Your task to perform on an android device: Do I have any events today? Image 0: 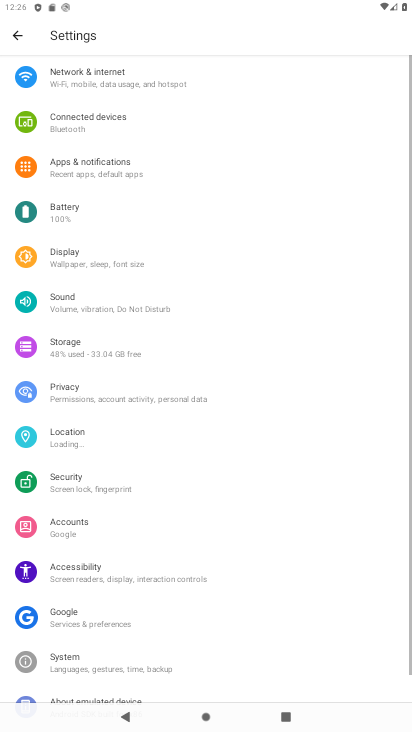
Step 0: press home button
Your task to perform on an android device: Do I have any events today? Image 1: 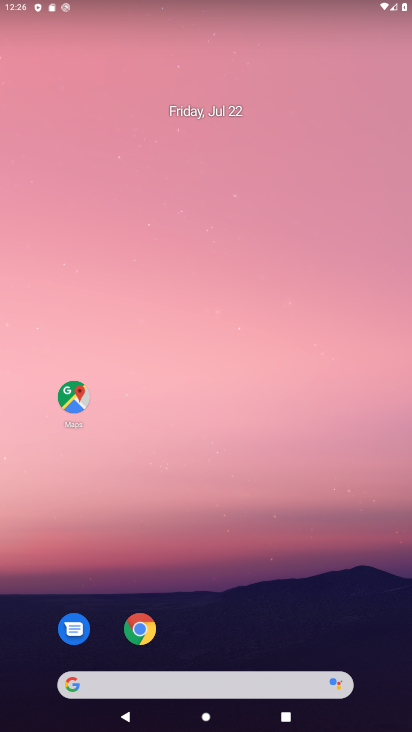
Step 1: drag from (223, 604) to (208, 142)
Your task to perform on an android device: Do I have any events today? Image 2: 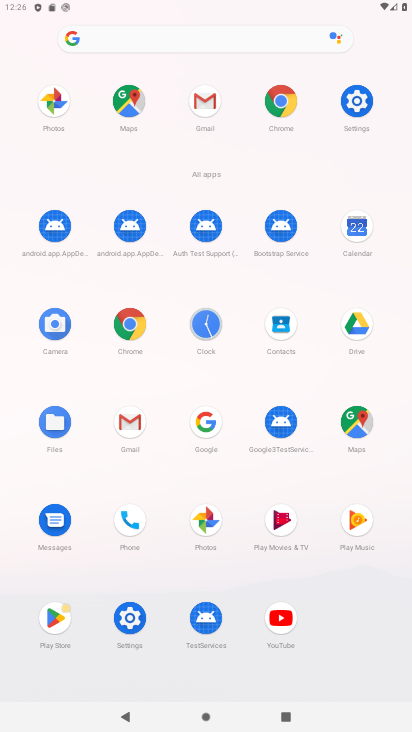
Step 2: click (354, 229)
Your task to perform on an android device: Do I have any events today? Image 3: 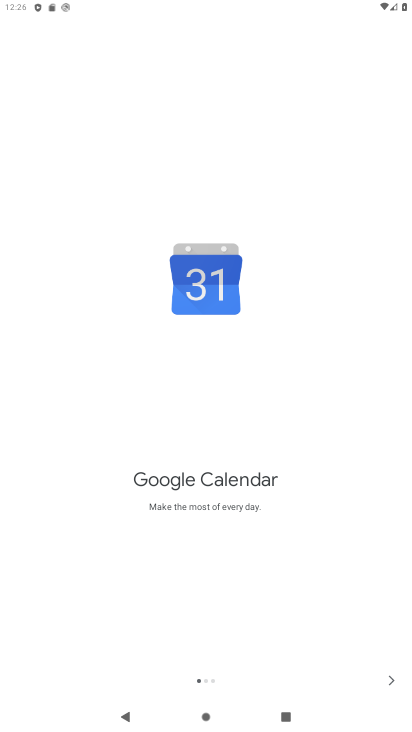
Step 3: click (389, 681)
Your task to perform on an android device: Do I have any events today? Image 4: 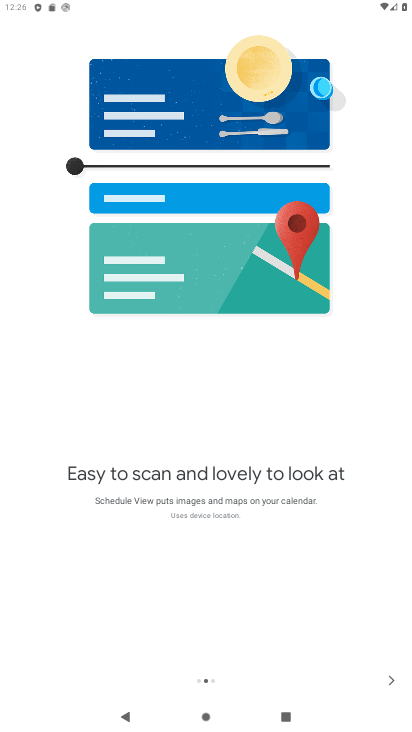
Step 4: click (389, 681)
Your task to perform on an android device: Do I have any events today? Image 5: 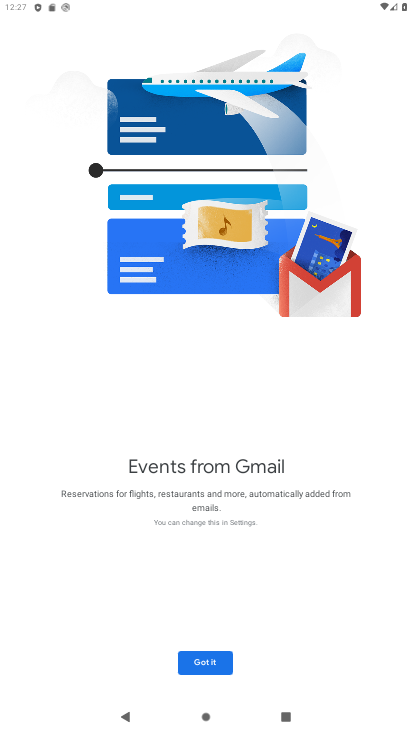
Step 5: click (205, 660)
Your task to perform on an android device: Do I have any events today? Image 6: 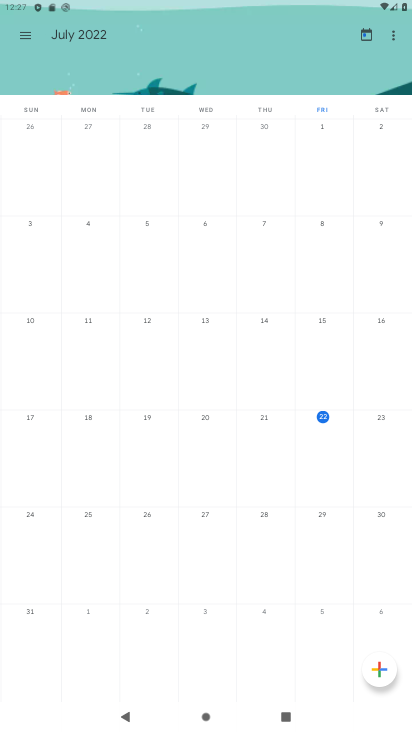
Step 6: click (328, 423)
Your task to perform on an android device: Do I have any events today? Image 7: 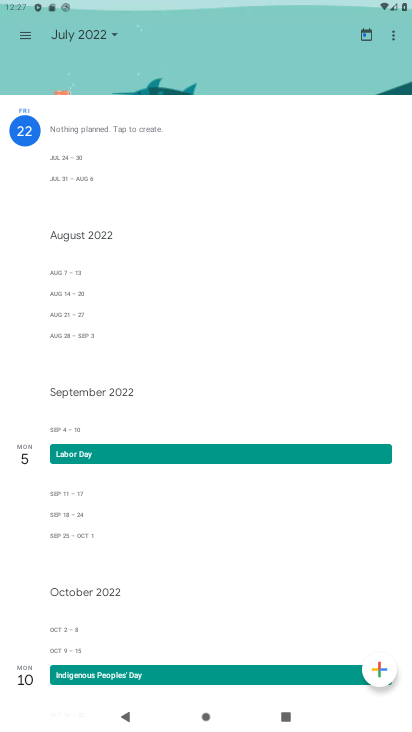
Step 7: task complete